Your task to perform on an android device: uninstall "Grab" Image 0: 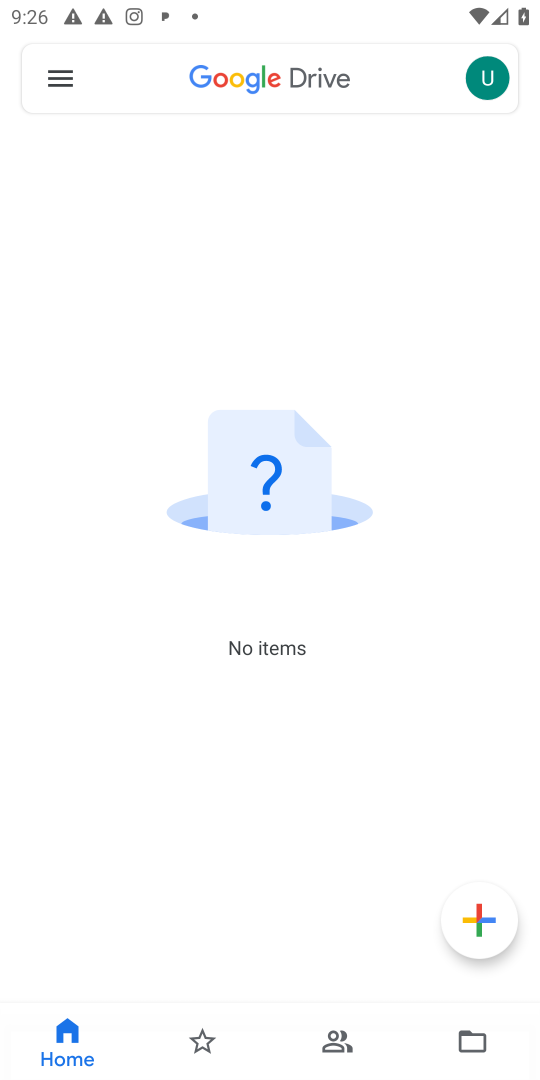
Step 0: press home button
Your task to perform on an android device: uninstall "Grab" Image 1: 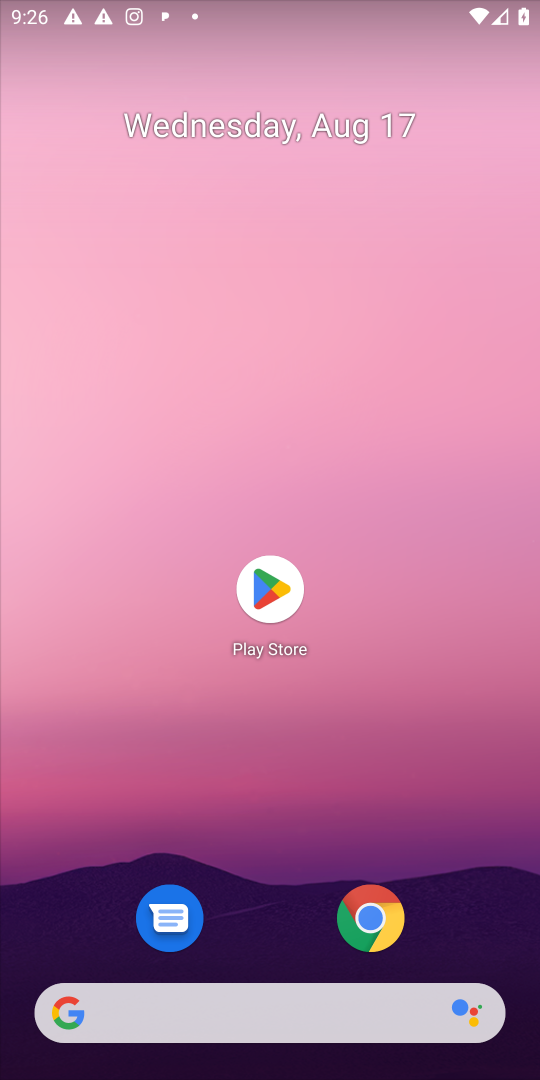
Step 1: click (272, 583)
Your task to perform on an android device: uninstall "Grab" Image 2: 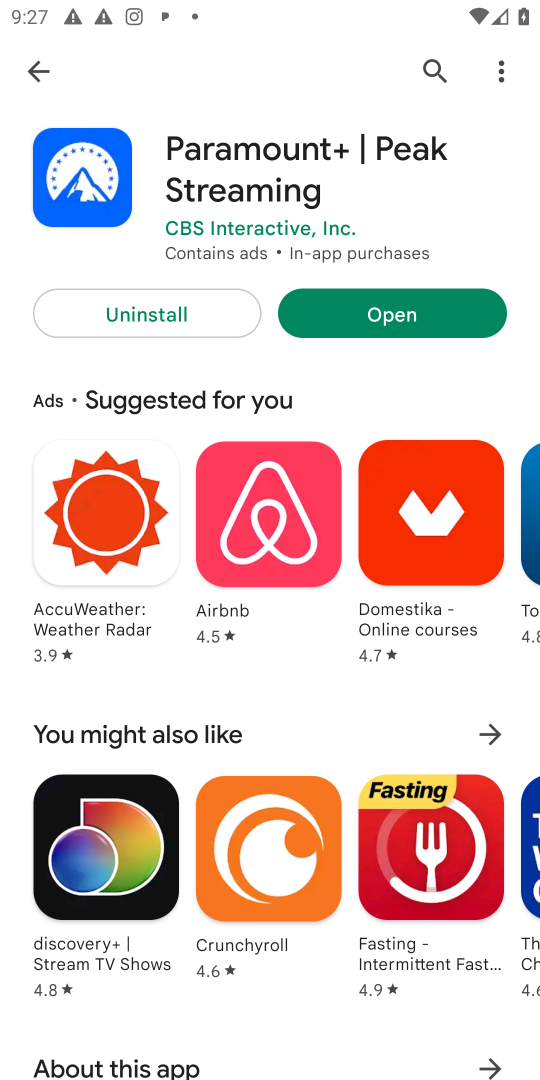
Step 2: click (432, 68)
Your task to perform on an android device: uninstall "Grab" Image 3: 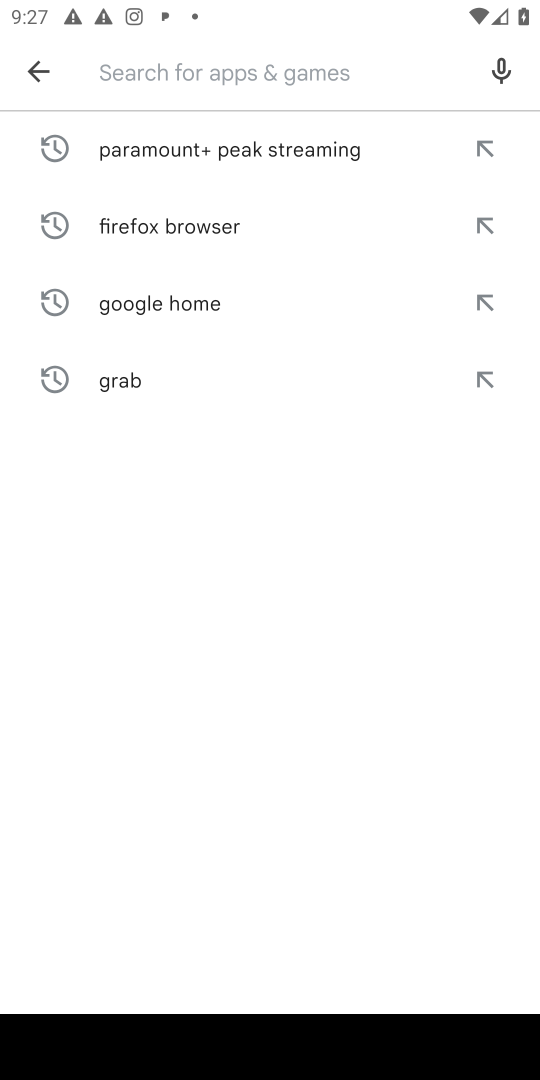
Step 3: type "Grab"
Your task to perform on an android device: uninstall "Grab" Image 4: 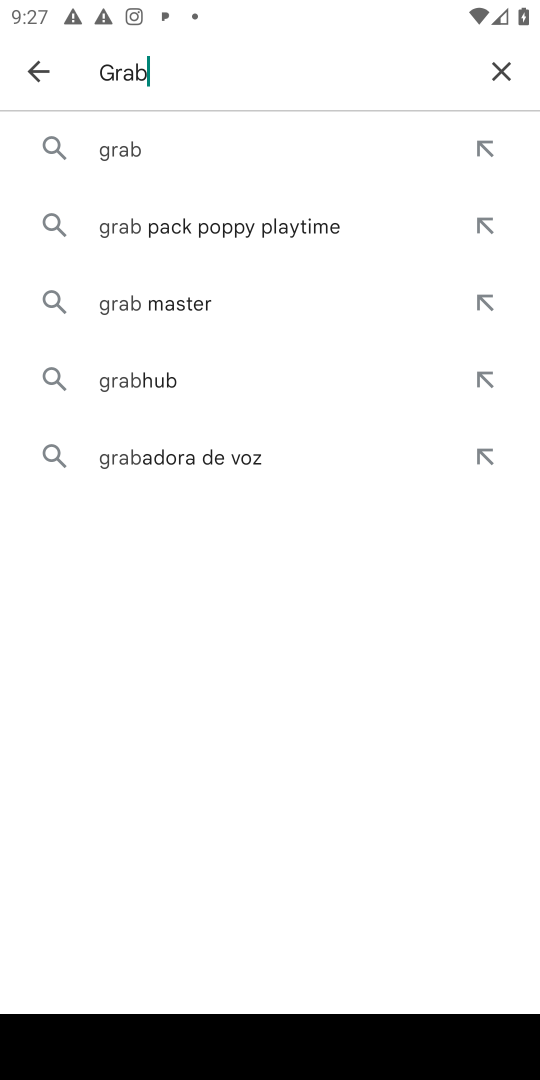
Step 4: click (111, 141)
Your task to perform on an android device: uninstall "Grab" Image 5: 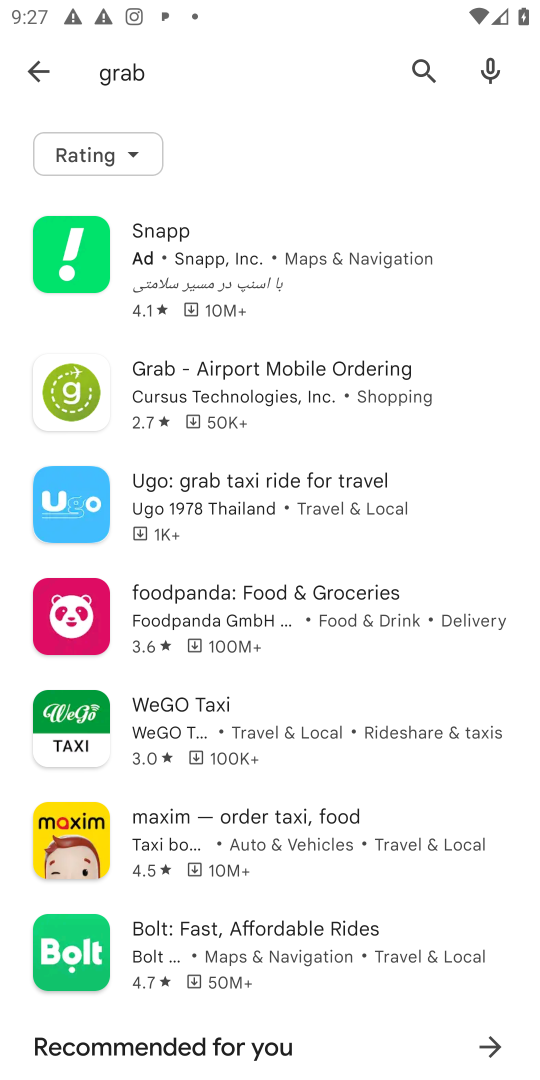
Step 5: task complete